Your task to perform on an android device: open wifi settings Image 0: 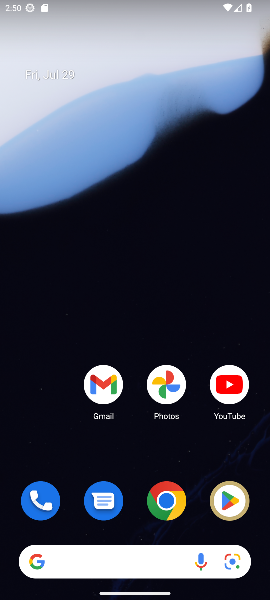
Step 0: drag from (132, 533) to (119, 75)
Your task to perform on an android device: open wifi settings Image 1: 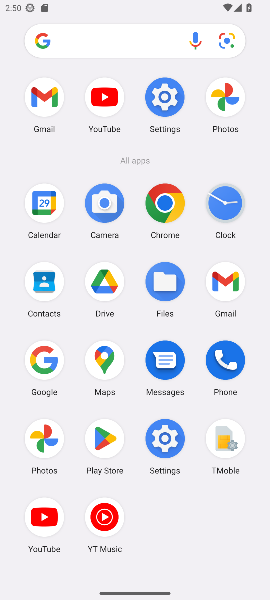
Step 1: click (159, 77)
Your task to perform on an android device: open wifi settings Image 2: 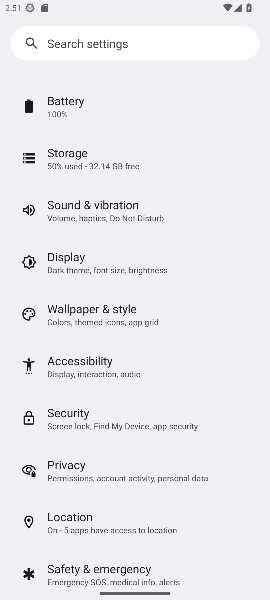
Step 2: drag from (78, 313) to (87, 501)
Your task to perform on an android device: open wifi settings Image 3: 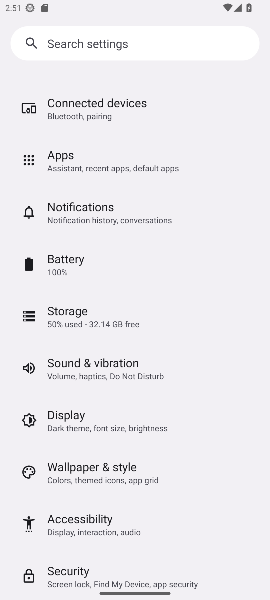
Step 3: click (127, 118)
Your task to perform on an android device: open wifi settings Image 4: 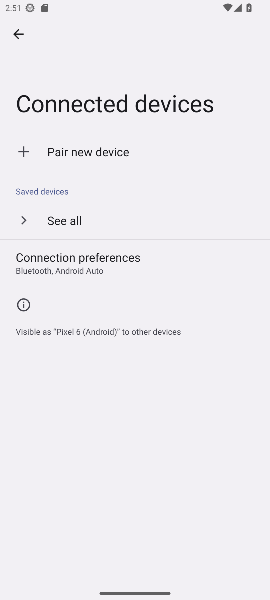
Step 4: task complete